Your task to perform on an android device: Open ESPN.com Image 0: 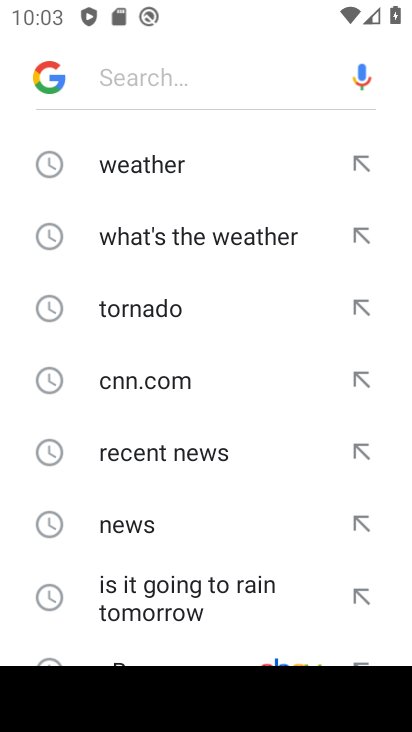
Step 0: press home button
Your task to perform on an android device: Open ESPN.com Image 1: 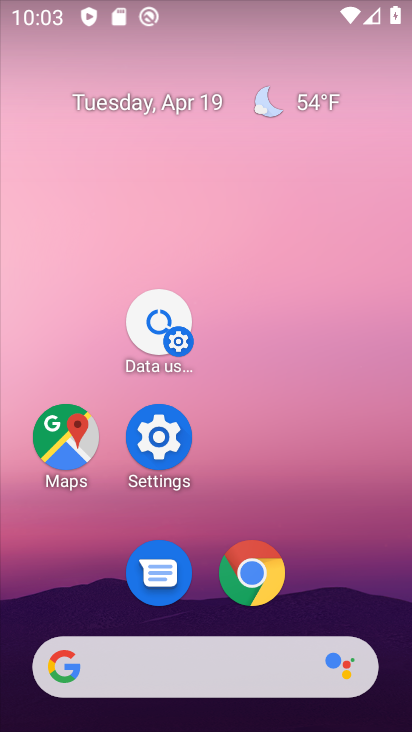
Step 1: click (254, 572)
Your task to perform on an android device: Open ESPN.com Image 2: 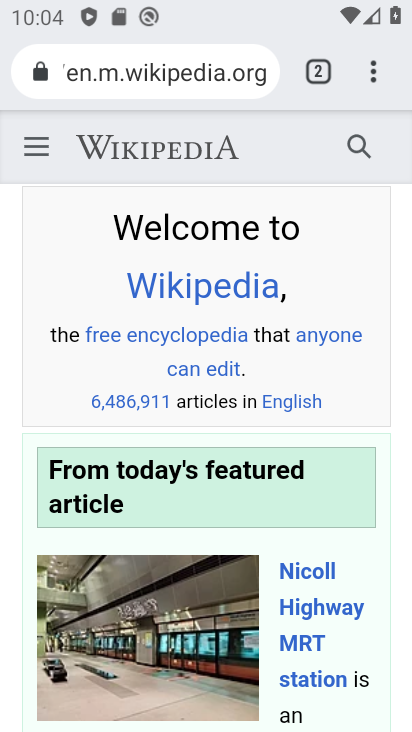
Step 2: click (267, 74)
Your task to perform on an android device: Open ESPN.com Image 3: 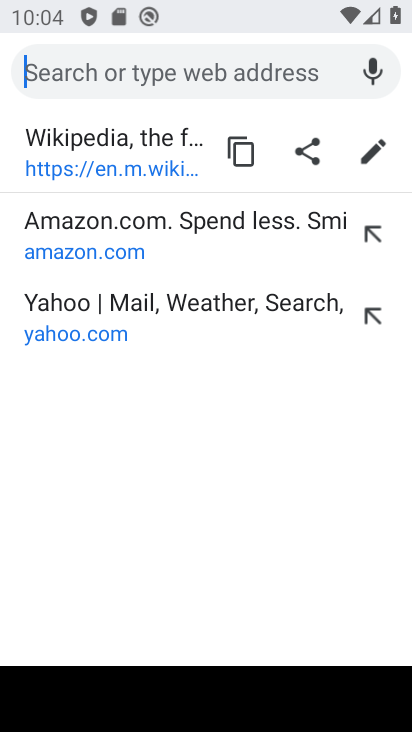
Step 3: type "espn.com"
Your task to perform on an android device: Open ESPN.com Image 4: 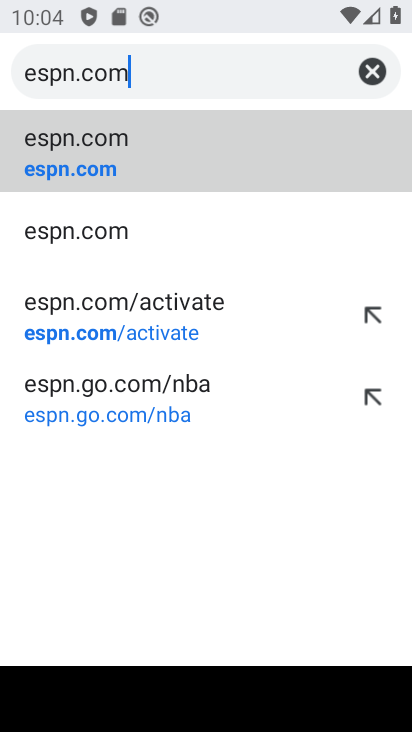
Step 4: click (60, 166)
Your task to perform on an android device: Open ESPN.com Image 5: 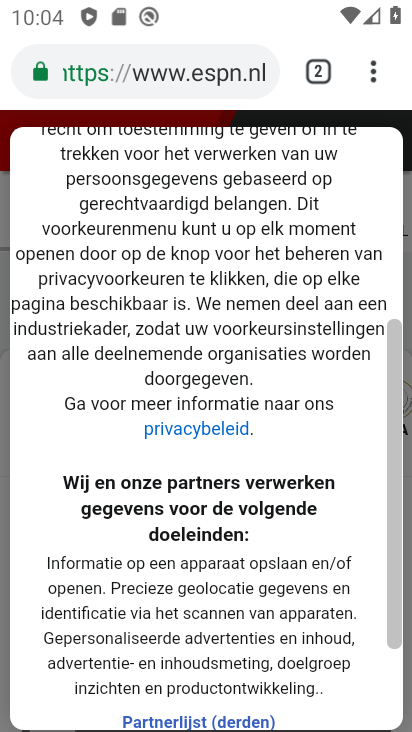
Step 5: task complete